Your task to perform on an android device: turn off location history Image 0: 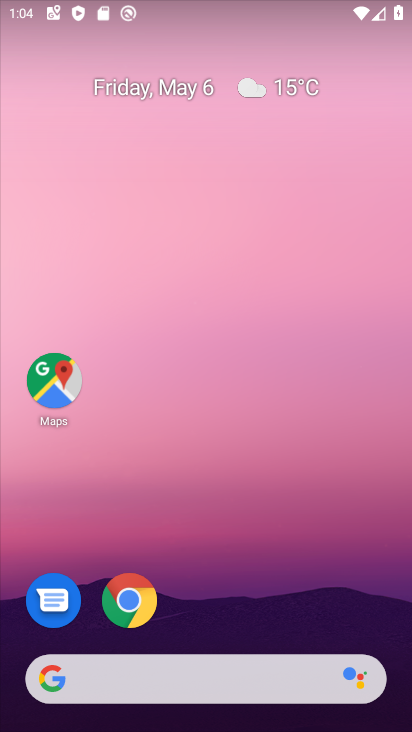
Step 0: drag from (299, 637) to (320, 6)
Your task to perform on an android device: turn off location history Image 1: 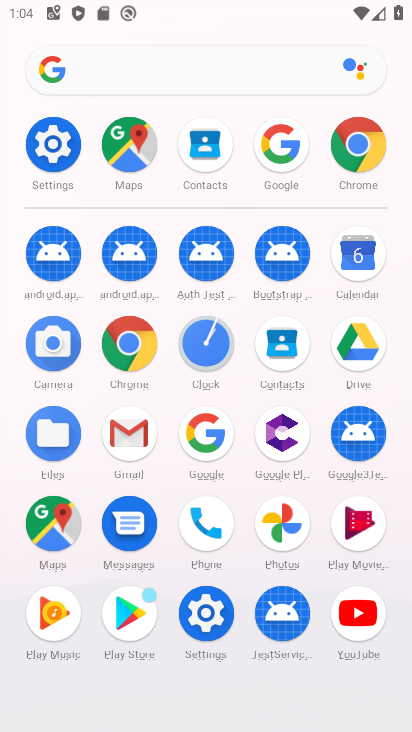
Step 1: click (210, 606)
Your task to perform on an android device: turn off location history Image 2: 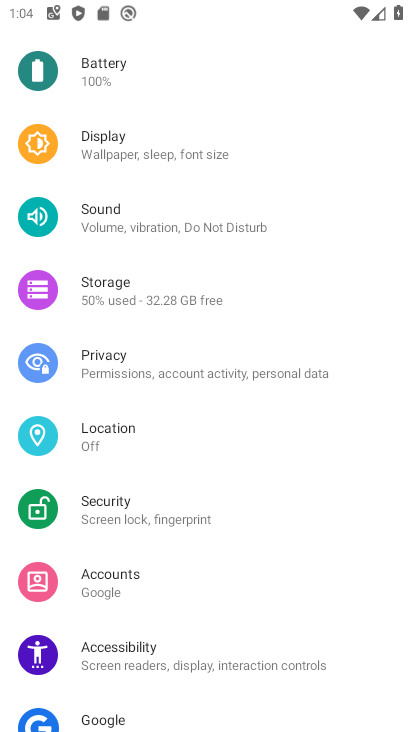
Step 2: click (191, 437)
Your task to perform on an android device: turn off location history Image 3: 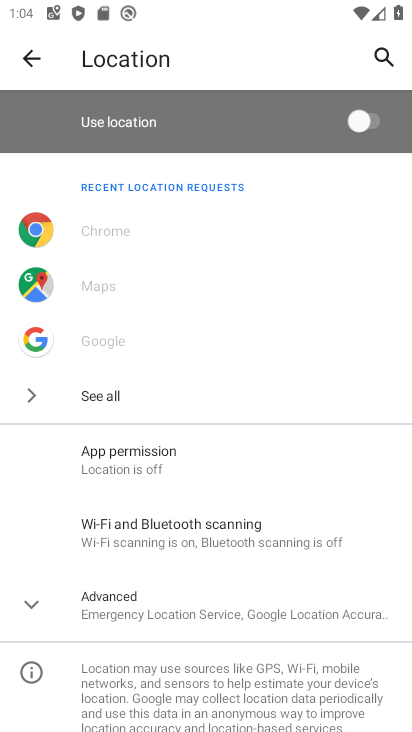
Step 3: click (74, 603)
Your task to perform on an android device: turn off location history Image 4: 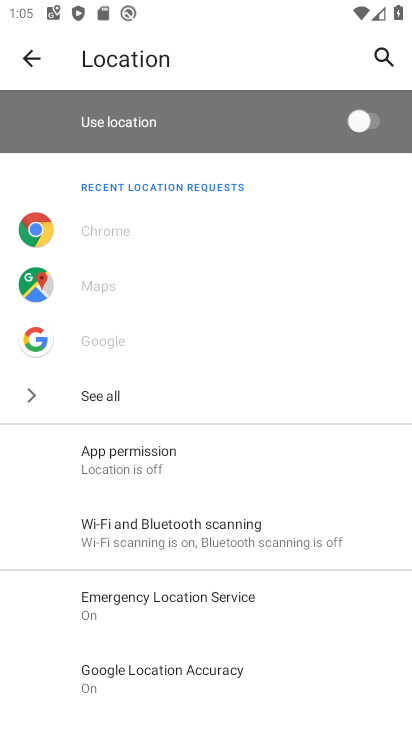
Step 4: drag from (179, 686) to (272, 421)
Your task to perform on an android device: turn off location history Image 5: 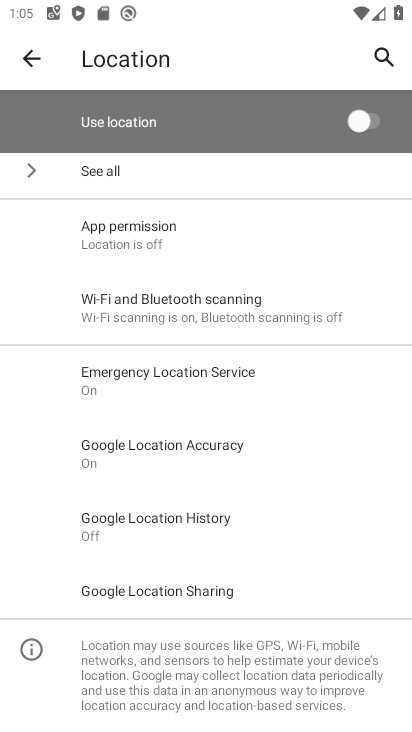
Step 5: click (140, 522)
Your task to perform on an android device: turn off location history Image 6: 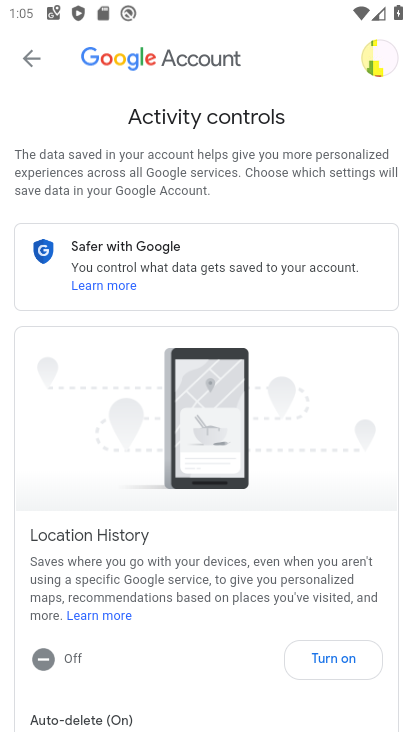
Step 6: click (317, 661)
Your task to perform on an android device: turn off location history Image 7: 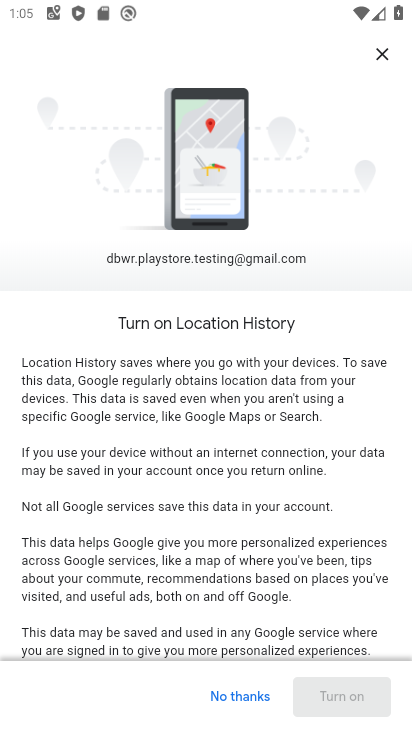
Step 7: task complete